Your task to perform on an android device: Go to ESPN.com Image 0: 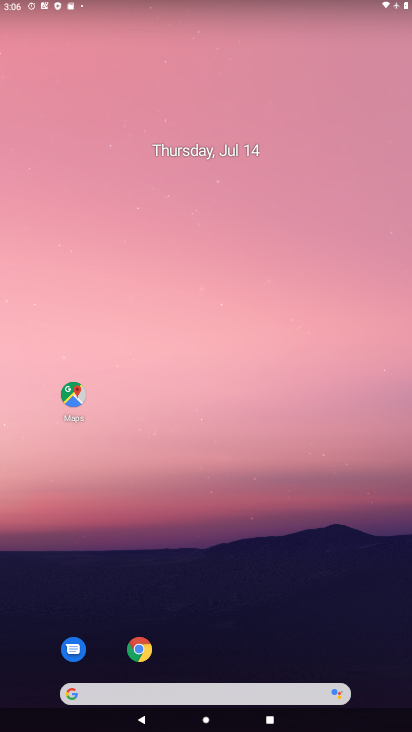
Step 0: drag from (250, 621) to (225, 5)
Your task to perform on an android device: Go to ESPN.com Image 1: 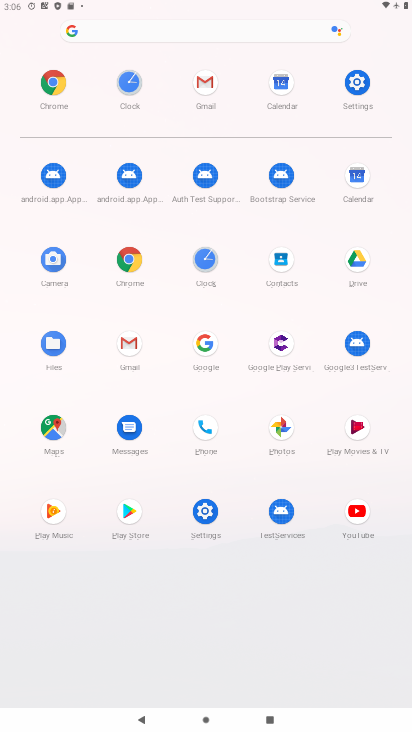
Step 1: click (140, 266)
Your task to perform on an android device: Go to ESPN.com Image 2: 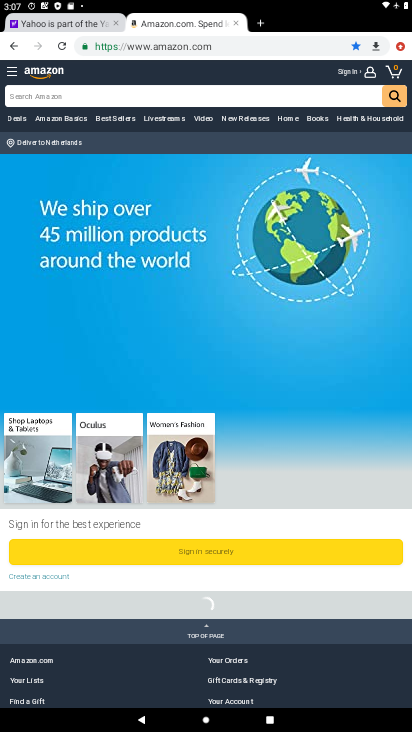
Step 2: click (113, 22)
Your task to perform on an android device: Go to ESPN.com Image 3: 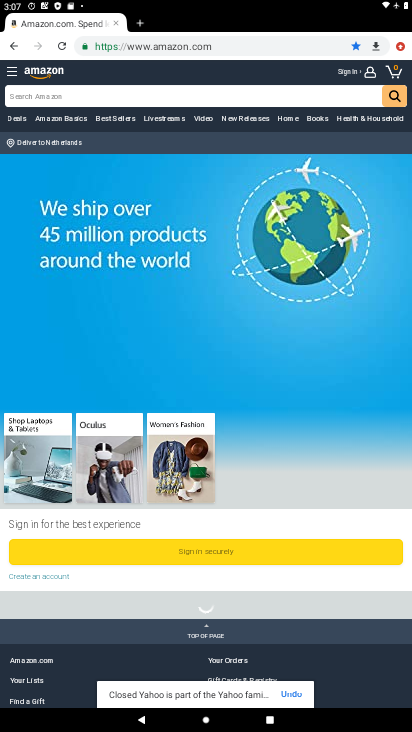
Step 3: click (140, 24)
Your task to perform on an android device: Go to ESPN.com Image 4: 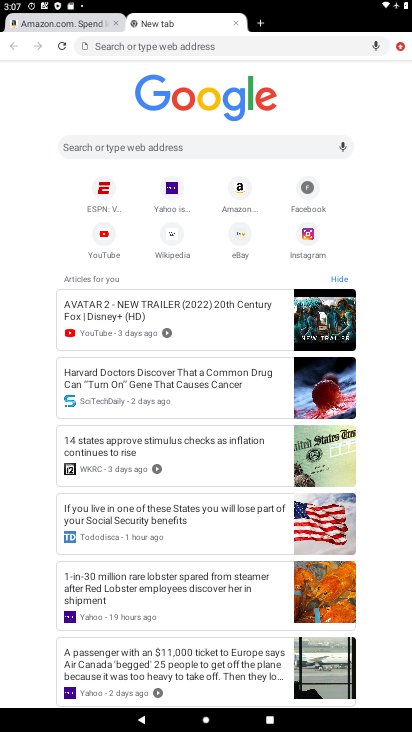
Step 4: click (103, 190)
Your task to perform on an android device: Go to ESPN.com Image 5: 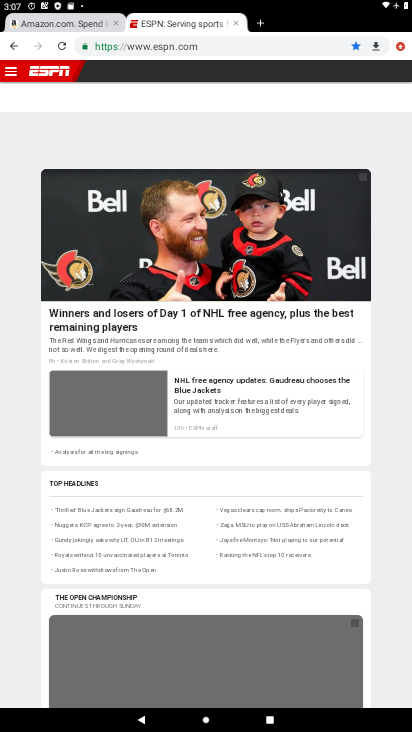
Step 5: task complete